Your task to perform on an android device: snooze an email in the gmail app Image 0: 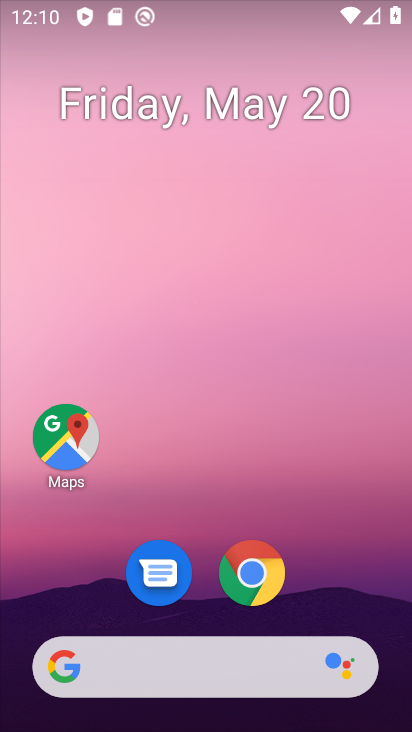
Step 0: drag from (329, 599) to (312, 43)
Your task to perform on an android device: snooze an email in the gmail app Image 1: 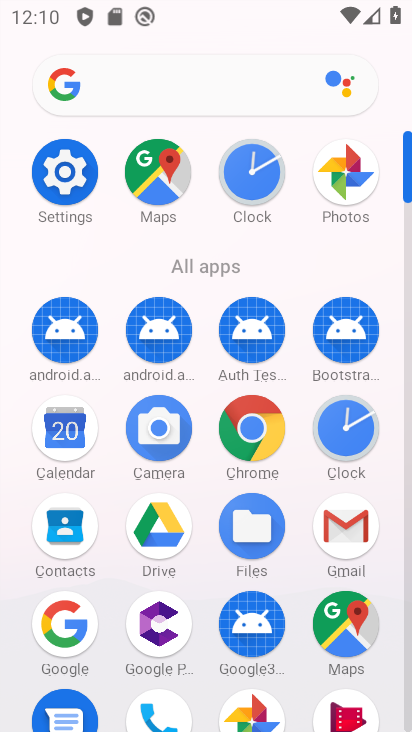
Step 1: drag from (204, 592) to (168, 267)
Your task to perform on an android device: snooze an email in the gmail app Image 2: 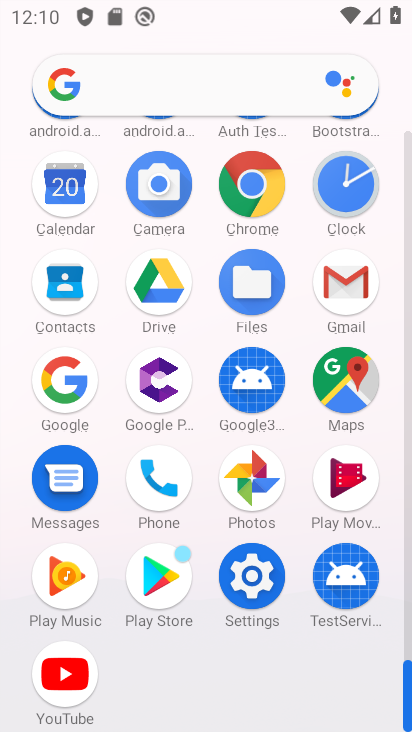
Step 2: click (344, 284)
Your task to perform on an android device: snooze an email in the gmail app Image 3: 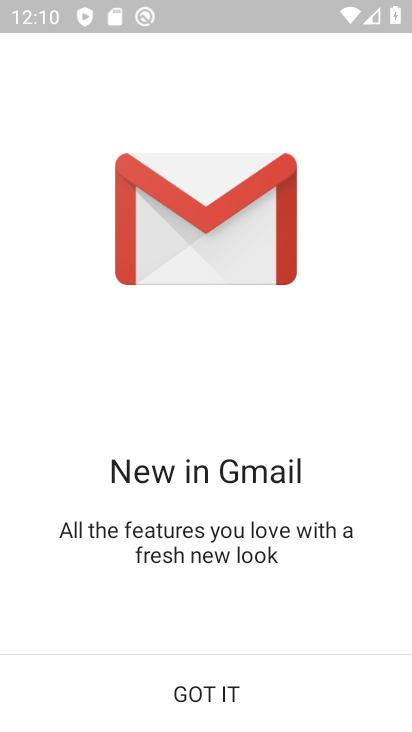
Step 3: click (181, 695)
Your task to perform on an android device: snooze an email in the gmail app Image 4: 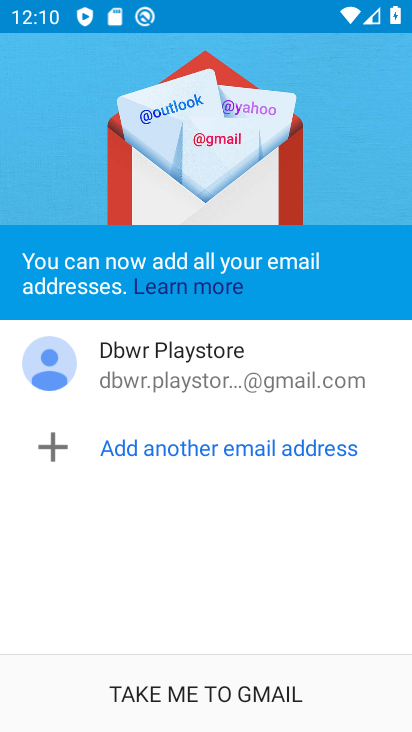
Step 4: click (208, 703)
Your task to perform on an android device: snooze an email in the gmail app Image 5: 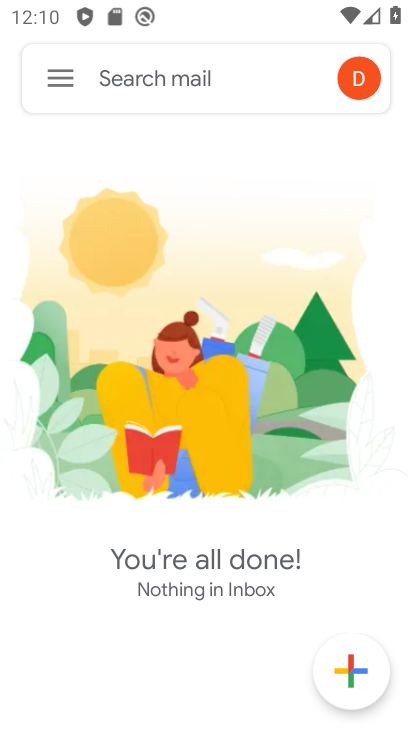
Step 5: click (39, 72)
Your task to perform on an android device: snooze an email in the gmail app Image 6: 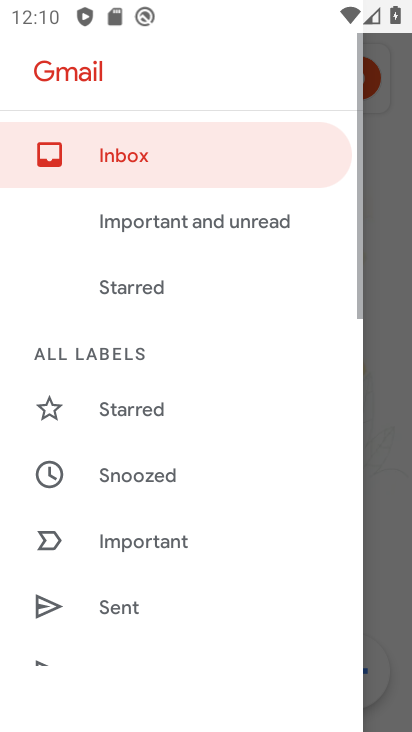
Step 6: drag from (181, 593) to (212, 167)
Your task to perform on an android device: snooze an email in the gmail app Image 7: 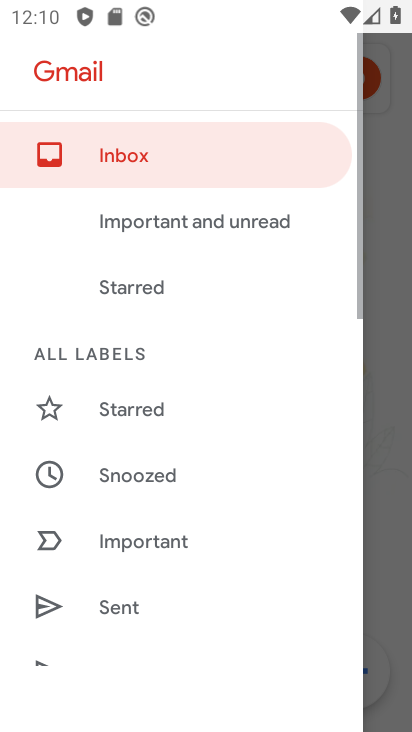
Step 7: drag from (181, 569) to (230, 191)
Your task to perform on an android device: snooze an email in the gmail app Image 8: 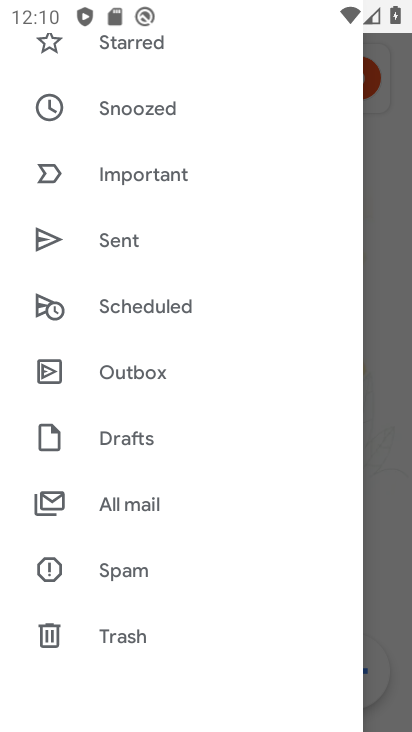
Step 8: click (167, 510)
Your task to perform on an android device: snooze an email in the gmail app Image 9: 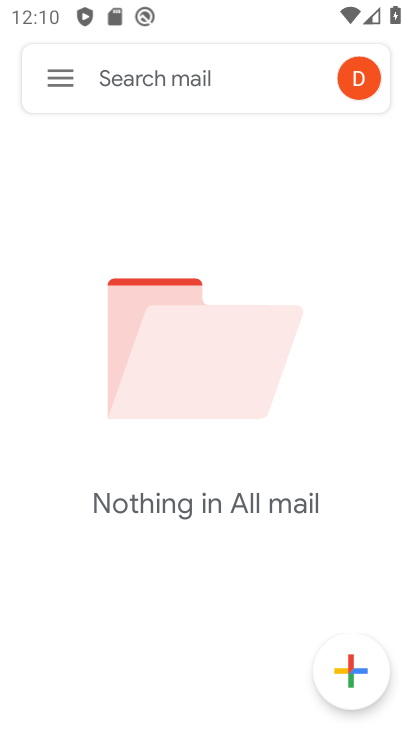
Step 9: task complete